Your task to perform on an android device: Do I have any events tomorrow? Image 0: 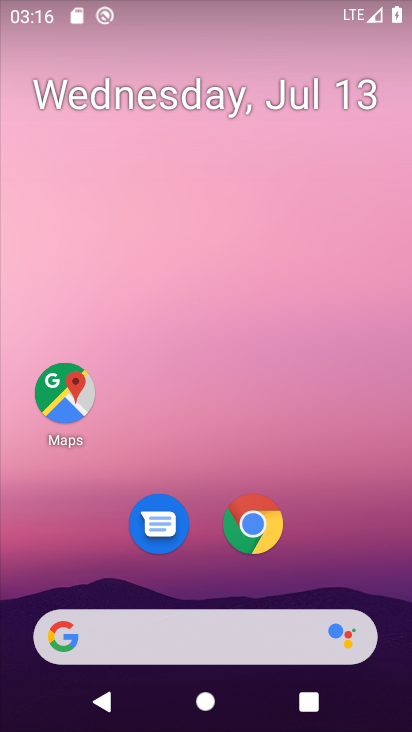
Step 0: drag from (324, 550) to (326, 35)
Your task to perform on an android device: Do I have any events tomorrow? Image 1: 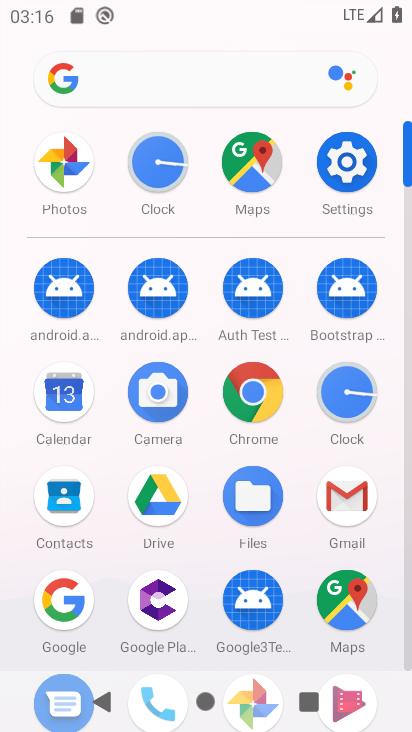
Step 1: click (67, 385)
Your task to perform on an android device: Do I have any events tomorrow? Image 2: 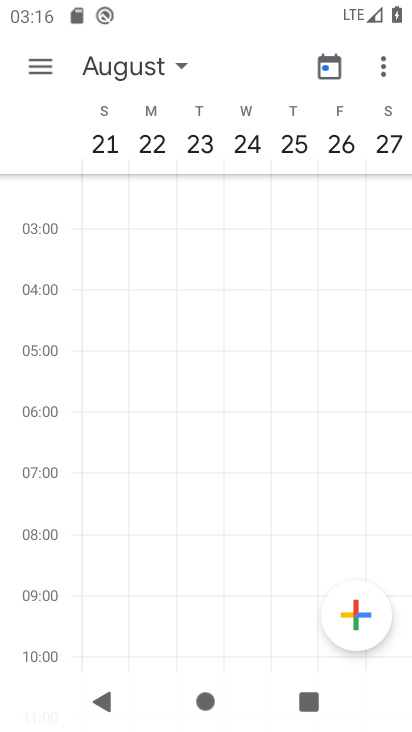
Step 2: drag from (106, 285) to (403, 391)
Your task to perform on an android device: Do I have any events tomorrow? Image 3: 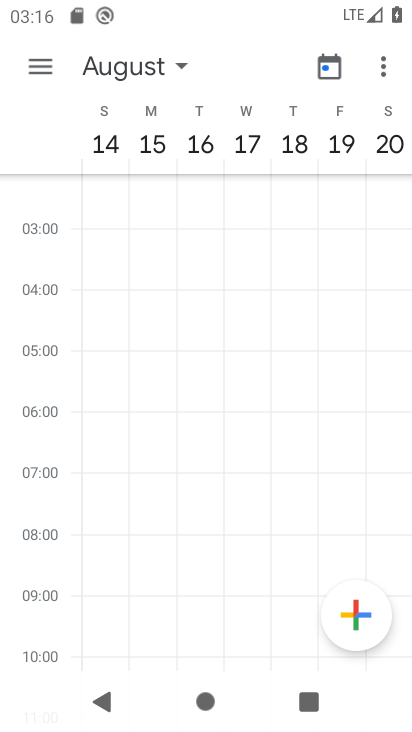
Step 3: drag from (121, 379) to (408, 419)
Your task to perform on an android device: Do I have any events tomorrow? Image 4: 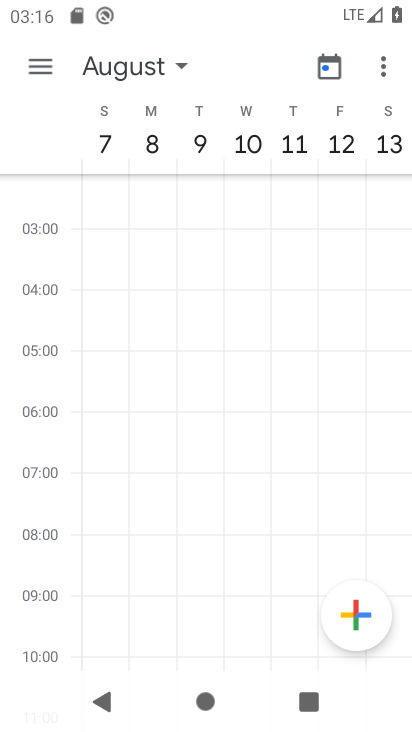
Step 4: drag from (103, 387) to (411, 429)
Your task to perform on an android device: Do I have any events tomorrow? Image 5: 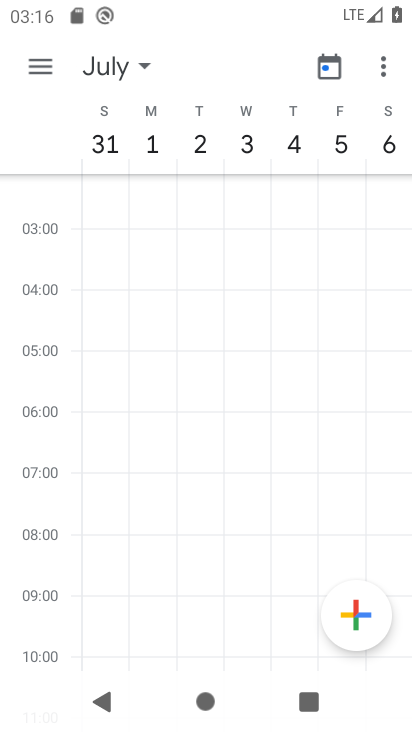
Step 5: drag from (109, 379) to (406, 447)
Your task to perform on an android device: Do I have any events tomorrow? Image 6: 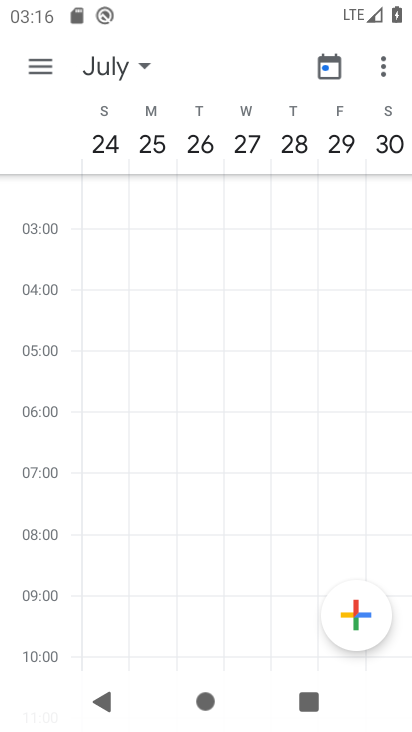
Step 6: drag from (112, 378) to (405, 405)
Your task to perform on an android device: Do I have any events tomorrow? Image 7: 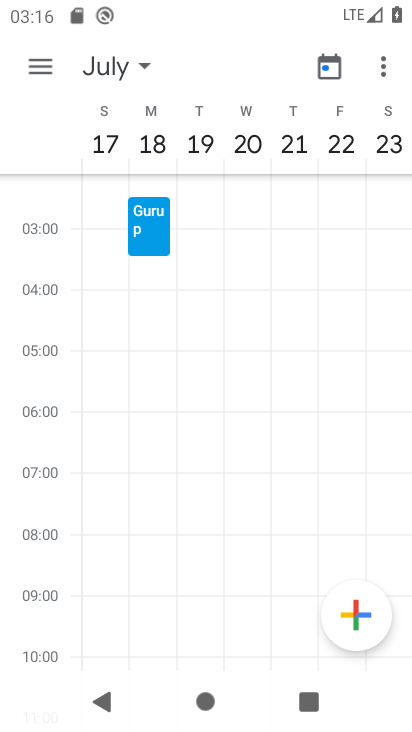
Step 7: drag from (111, 378) to (411, 492)
Your task to perform on an android device: Do I have any events tomorrow? Image 8: 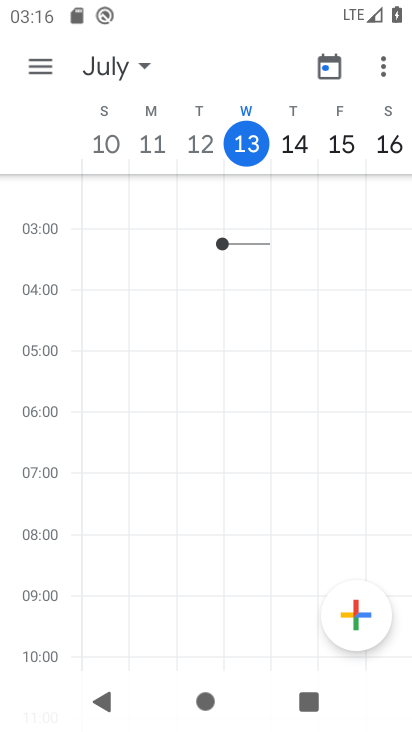
Step 8: click (290, 140)
Your task to perform on an android device: Do I have any events tomorrow? Image 9: 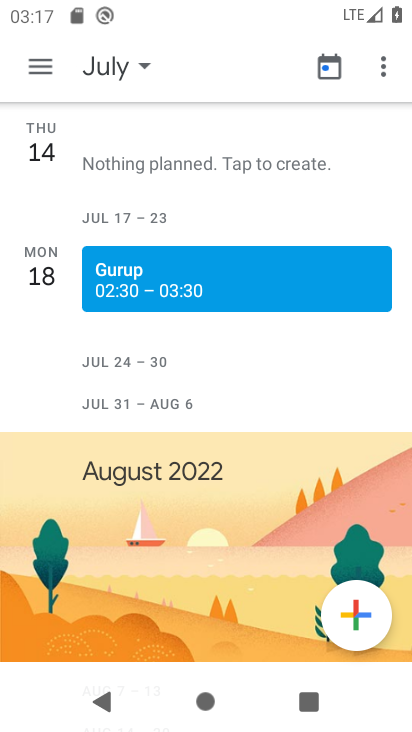
Step 9: task complete